Your task to perform on an android device: Empty the shopping cart on target. Add logitech g pro to the cart on target, then select checkout. Image 0: 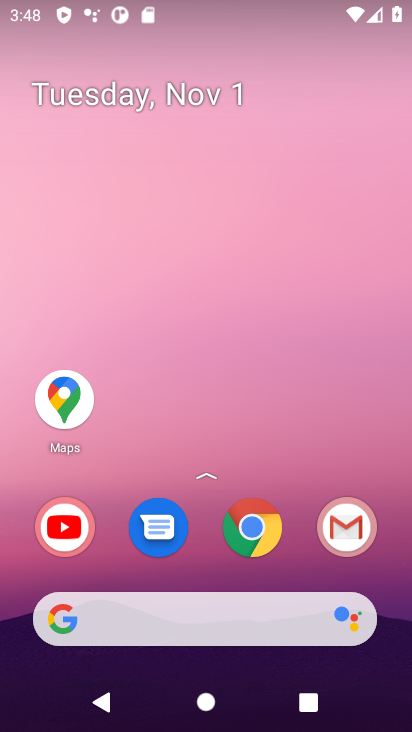
Step 0: click (170, 614)
Your task to perform on an android device: Empty the shopping cart on target. Add logitech g pro to the cart on target, then select checkout. Image 1: 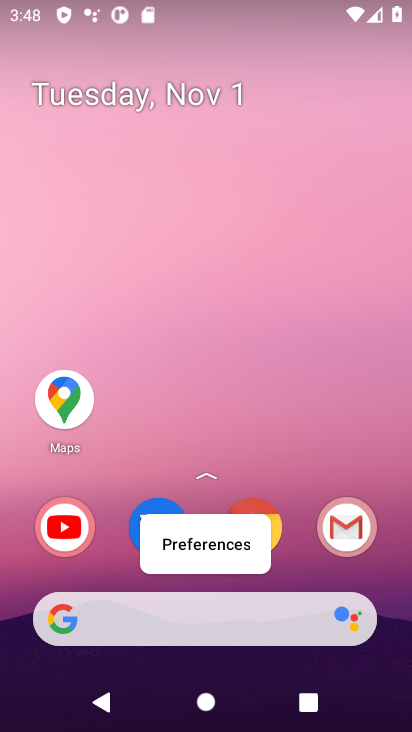
Step 1: type "target"
Your task to perform on an android device: Empty the shopping cart on target. Add logitech g pro to the cart on target, then select checkout. Image 2: 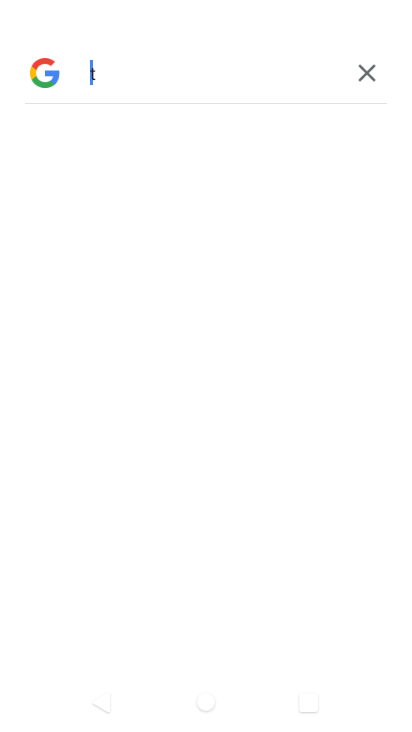
Step 2: type ""
Your task to perform on an android device: Empty the shopping cart on target. Add logitech g pro to the cart on target, then select checkout. Image 3: 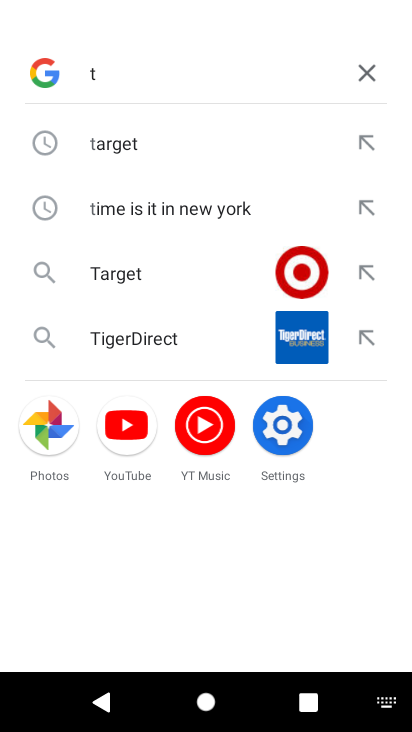
Step 3: click (354, 72)
Your task to perform on an android device: Empty the shopping cart on target. Add logitech g pro to the cart on target, then select checkout. Image 4: 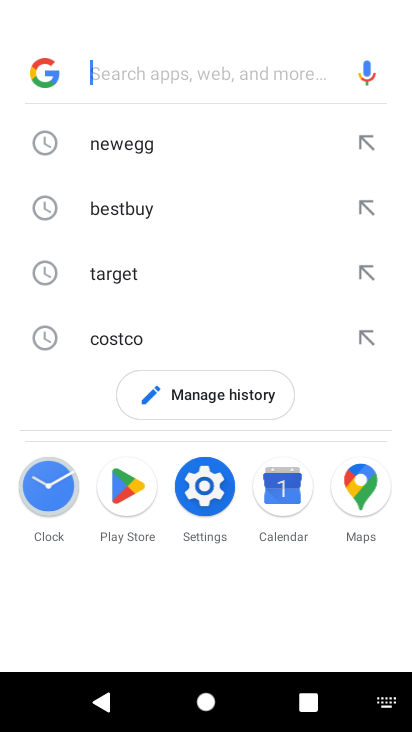
Step 4: click (128, 249)
Your task to perform on an android device: Empty the shopping cart on target. Add logitech g pro to the cart on target, then select checkout. Image 5: 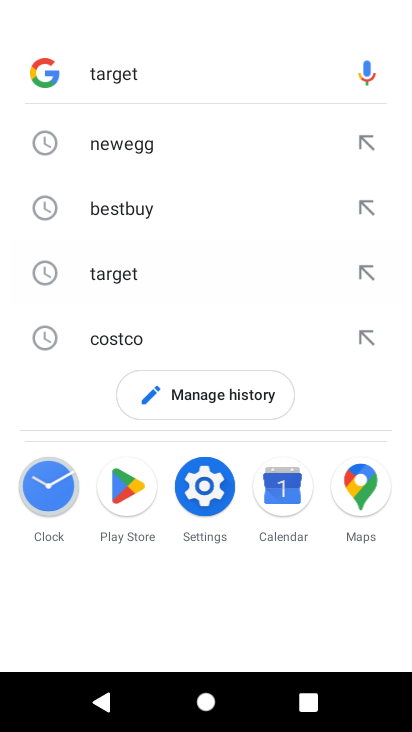
Step 5: click (123, 272)
Your task to perform on an android device: Empty the shopping cart on target. Add logitech g pro to the cart on target, then select checkout. Image 6: 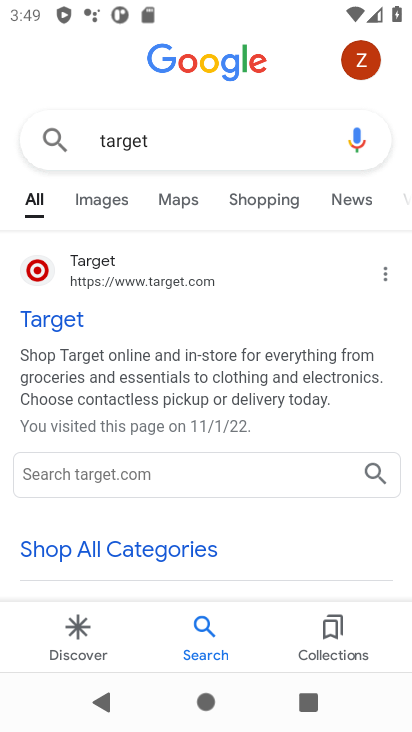
Step 6: click (119, 299)
Your task to perform on an android device: Empty the shopping cart on target. Add logitech g pro to the cart on target, then select checkout. Image 7: 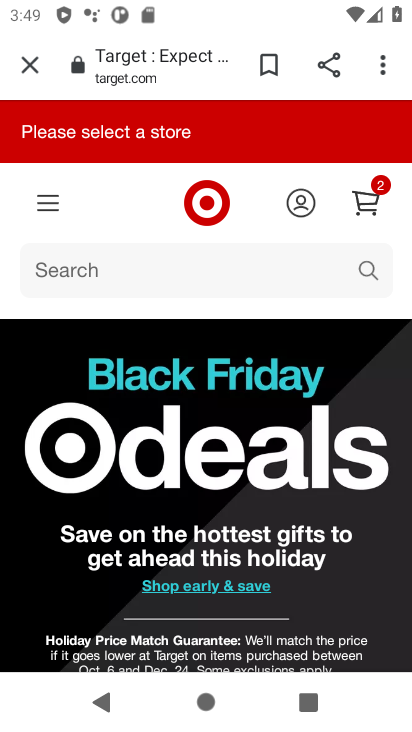
Step 7: click (356, 193)
Your task to perform on an android device: Empty the shopping cart on target. Add logitech g pro to the cart on target, then select checkout. Image 8: 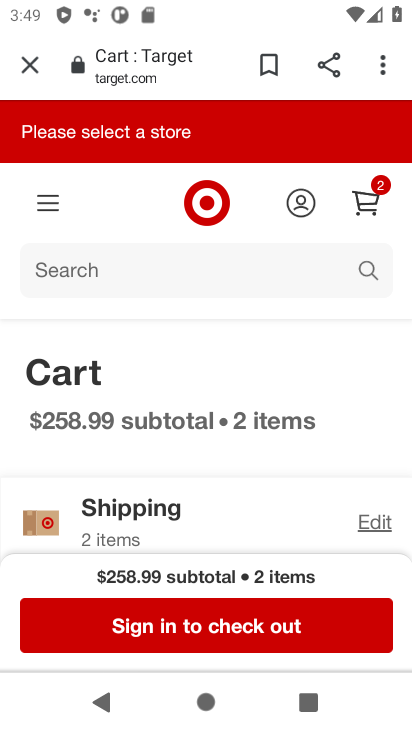
Step 8: drag from (273, 488) to (238, 245)
Your task to perform on an android device: Empty the shopping cart on target. Add logitech g pro to the cart on target, then select checkout. Image 9: 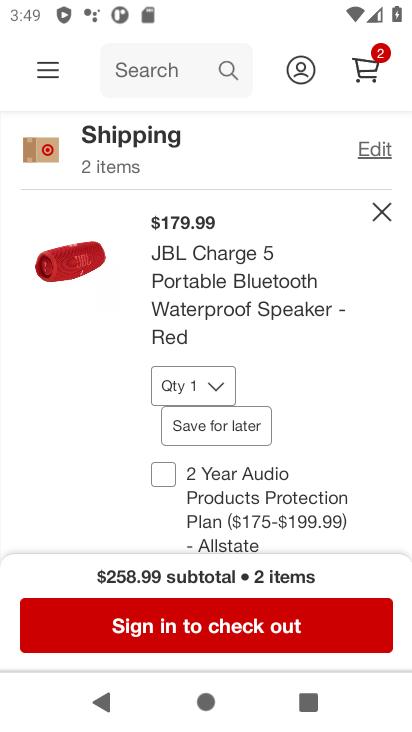
Step 9: click (215, 383)
Your task to perform on an android device: Empty the shopping cart on target. Add logitech g pro to the cart on target, then select checkout. Image 10: 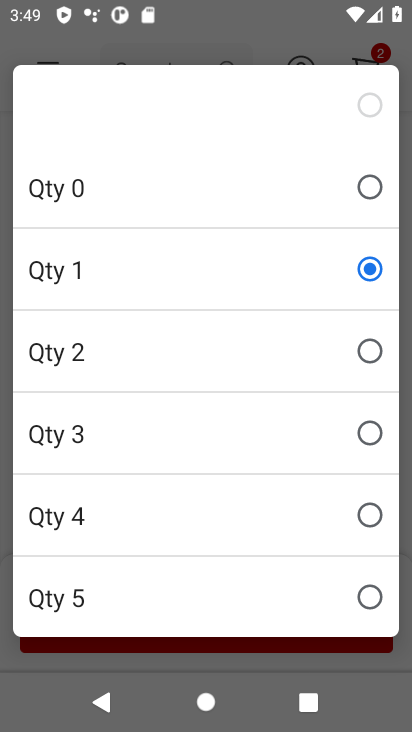
Step 10: click (166, 193)
Your task to perform on an android device: Empty the shopping cart on target. Add logitech g pro to the cart on target, then select checkout. Image 11: 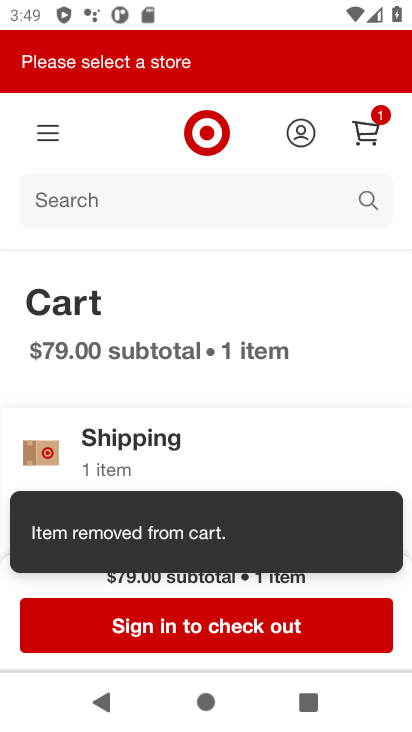
Step 11: drag from (203, 415) to (183, 256)
Your task to perform on an android device: Empty the shopping cart on target. Add logitech g pro to the cart on target, then select checkout. Image 12: 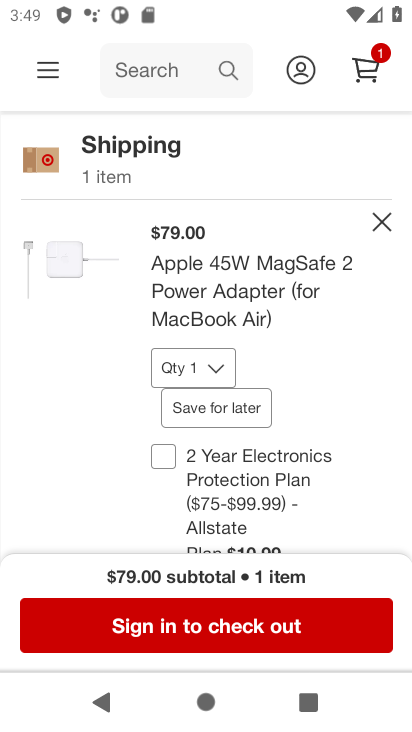
Step 12: click (219, 373)
Your task to perform on an android device: Empty the shopping cart on target. Add logitech g pro to the cart on target, then select checkout. Image 13: 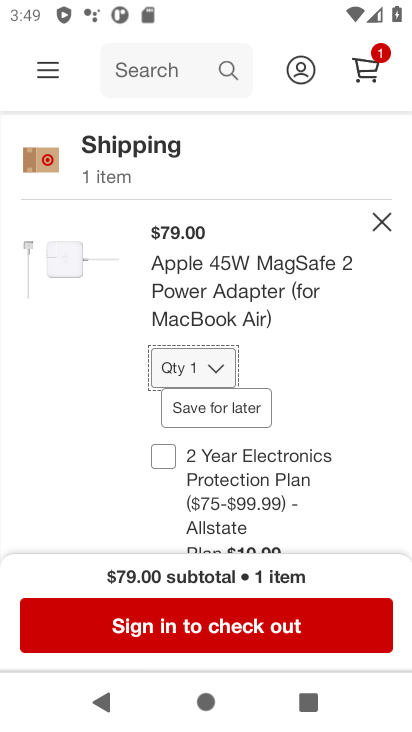
Step 13: click (219, 373)
Your task to perform on an android device: Empty the shopping cart on target. Add logitech g pro to the cart on target, then select checkout. Image 14: 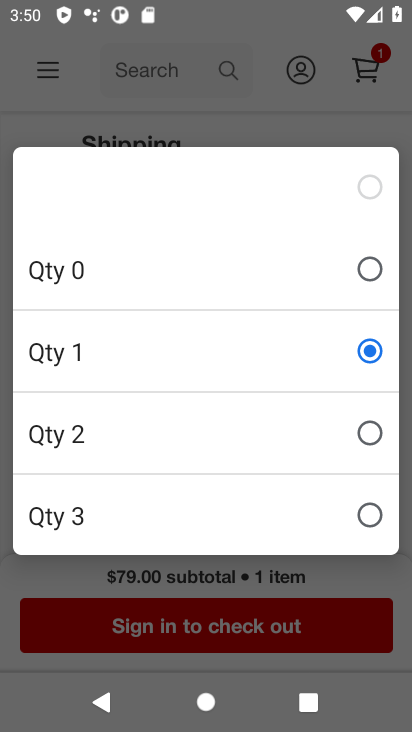
Step 14: click (229, 293)
Your task to perform on an android device: Empty the shopping cart on target. Add logitech g pro to the cart on target, then select checkout. Image 15: 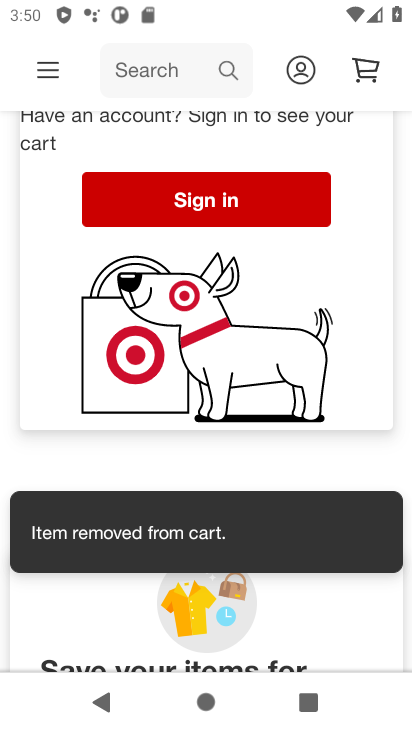
Step 15: drag from (358, 254) to (334, 423)
Your task to perform on an android device: Empty the shopping cart on target. Add logitech g pro to the cart on target, then select checkout. Image 16: 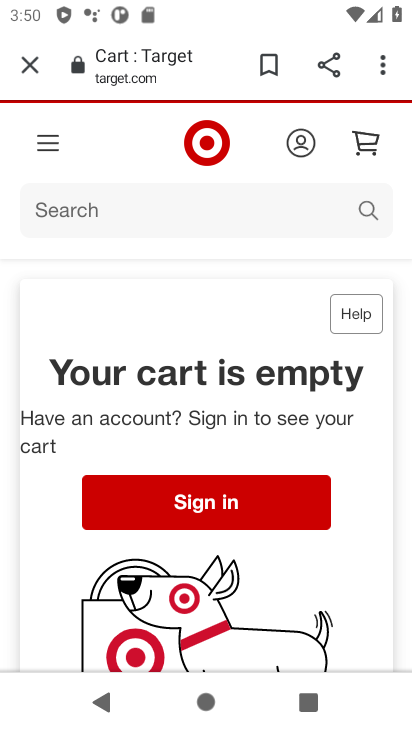
Step 16: click (227, 198)
Your task to perform on an android device: Empty the shopping cart on target. Add logitech g pro to the cart on target, then select checkout. Image 17: 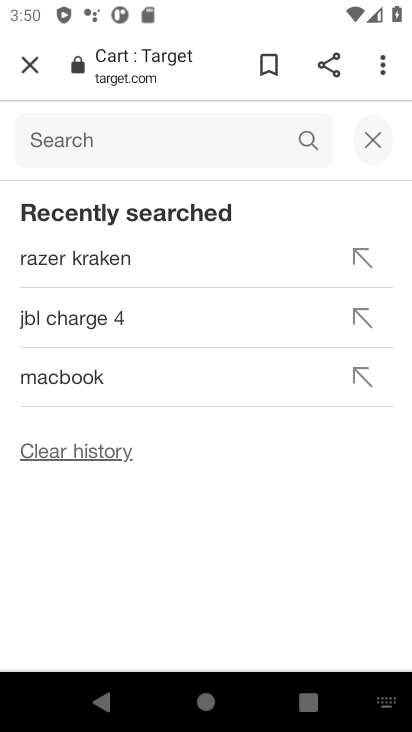
Step 17: type "logitech g pro"
Your task to perform on an android device: Empty the shopping cart on target. Add logitech g pro to the cart on target, then select checkout. Image 18: 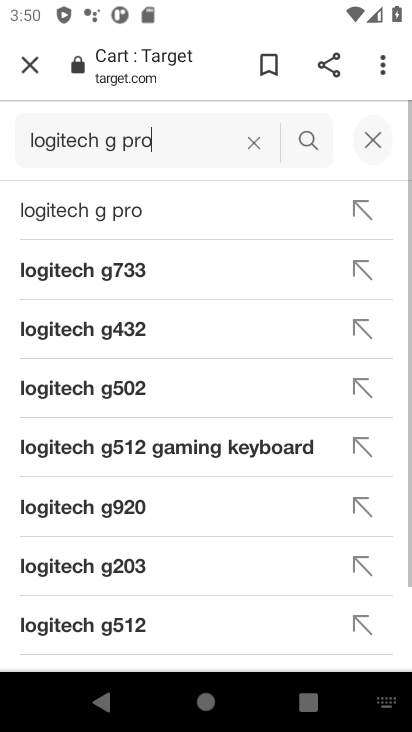
Step 18: type ""
Your task to perform on an android device: Empty the shopping cart on target. Add logitech g pro to the cart on target, then select checkout. Image 19: 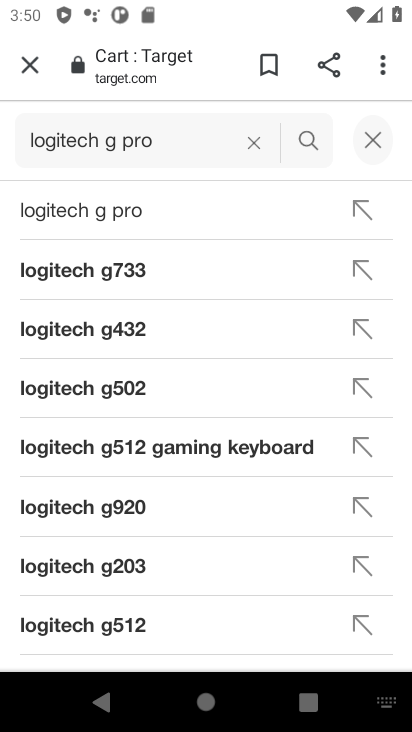
Step 19: press enter
Your task to perform on an android device: Empty the shopping cart on target. Add logitech g pro to the cart on target, then select checkout. Image 20: 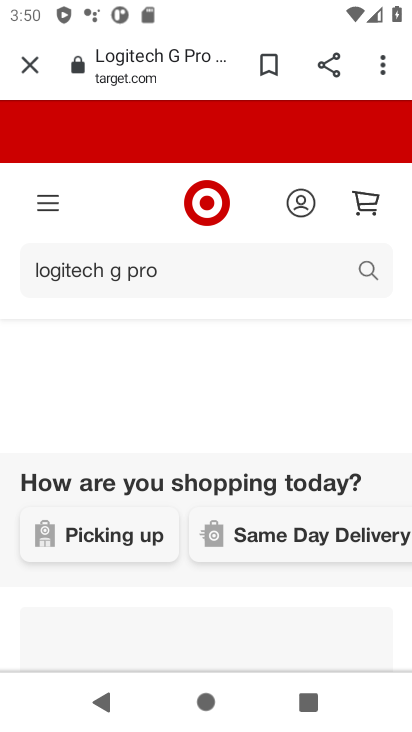
Step 20: drag from (235, 379) to (227, 155)
Your task to perform on an android device: Empty the shopping cart on target. Add logitech g pro to the cart on target, then select checkout. Image 21: 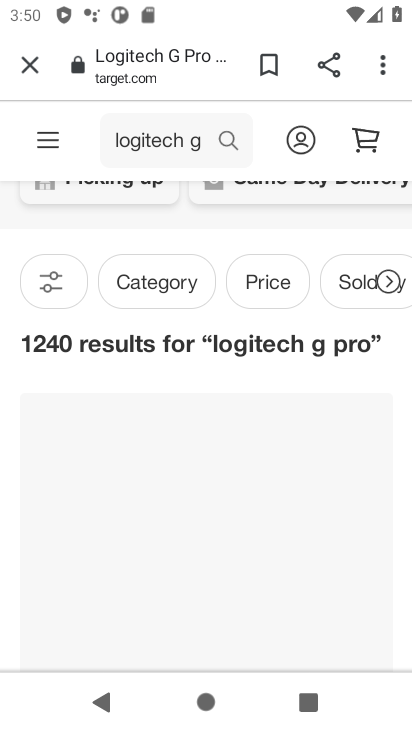
Step 21: drag from (223, 503) to (194, 276)
Your task to perform on an android device: Empty the shopping cart on target. Add logitech g pro to the cart on target, then select checkout. Image 22: 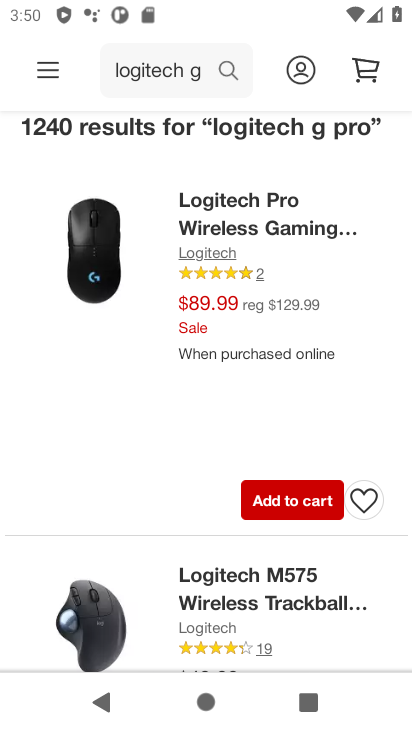
Step 22: drag from (299, 477) to (301, 439)
Your task to perform on an android device: Empty the shopping cart on target. Add logitech g pro to the cart on target, then select checkout. Image 23: 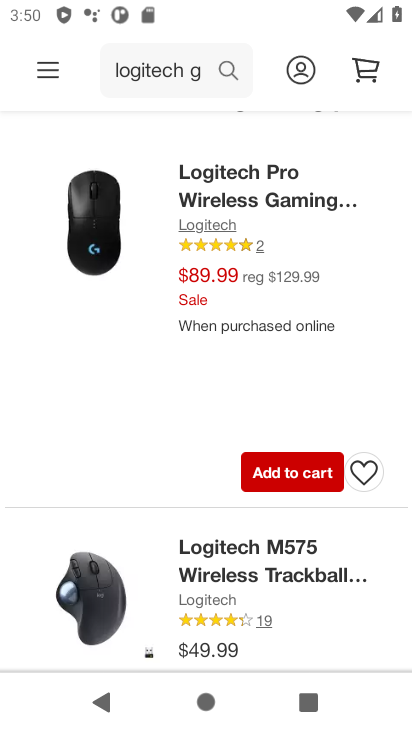
Step 23: click (296, 485)
Your task to perform on an android device: Empty the shopping cart on target. Add logitech g pro to the cart on target, then select checkout. Image 24: 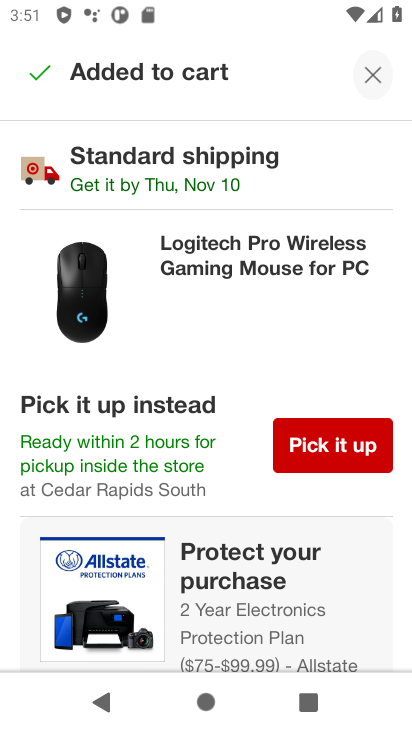
Step 24: drag from (262, 443) to (303, 584)
Your task to perform on an android device: Empty the shopping cart on target. Add logitech g pro to the cart on target, then select checkout. Image 25: 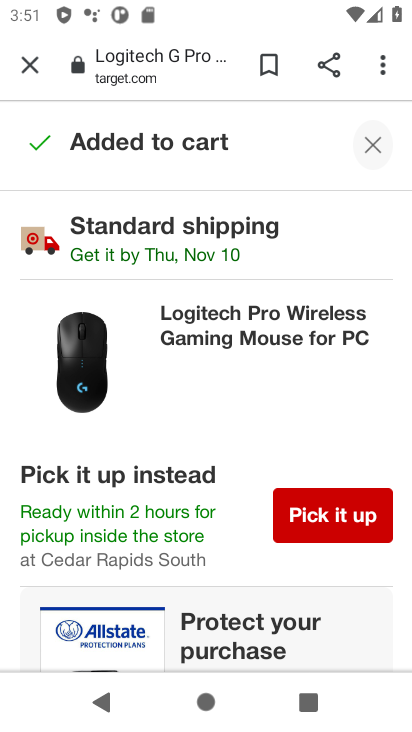
Step 25: click (36, 144)
Your task to perform on an android device: Empty the shopping cart on target. Add logitech g pro to the cart on target, then select checkout. Image 26: 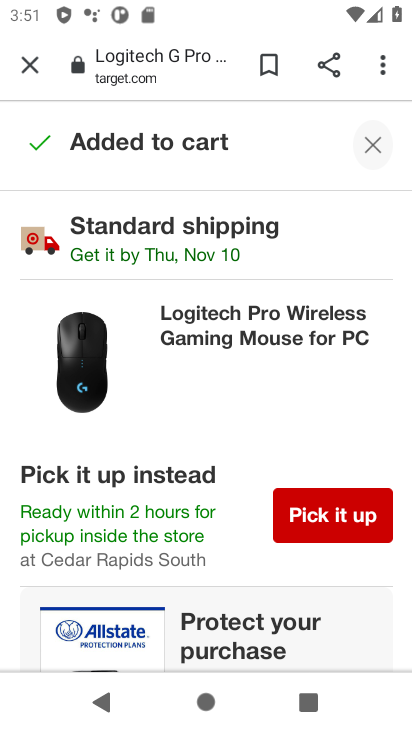
Step 26: click (333, 533)
Your task to perform on an android device: Empty the shopping cart on target. Add logitech g pro to the cart on target, then select checkout. Image 27: 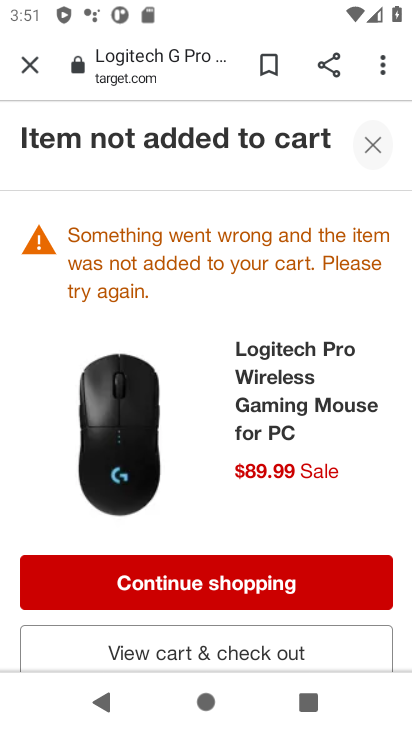
Step 27: drag from (246, 478) to (269, 321)
Your task to perform on an android device: Empty the shopping cart on target. Add logitech g pro to the cart on target, then select checkout. Image 28: 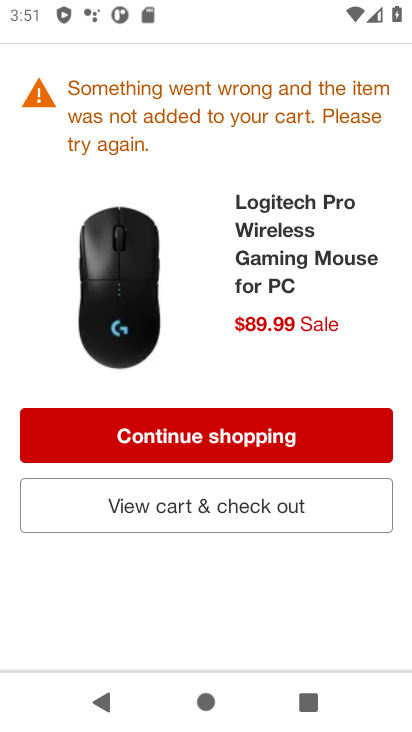
Step 28: click (198, 500)
Your task to perform on an android device: Empty the shopping cart on target. Add logitech g pro to the cart on target, then select checkout. Image 29: 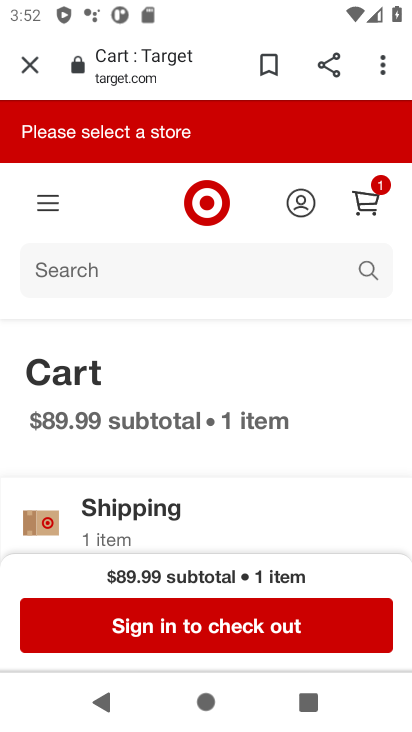
Step 29: task complete